Your task to perform on an android device: Open network settings Image 0: 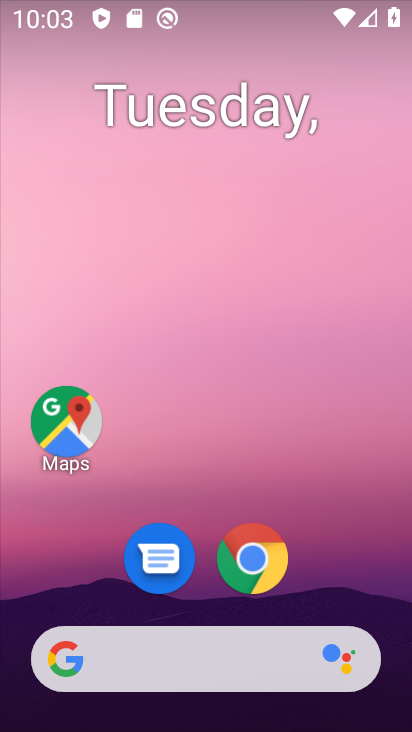
Step 0: drag from (352, 557) to (350, 11)
Your task to perform on an android device: Open network settings Image 1: 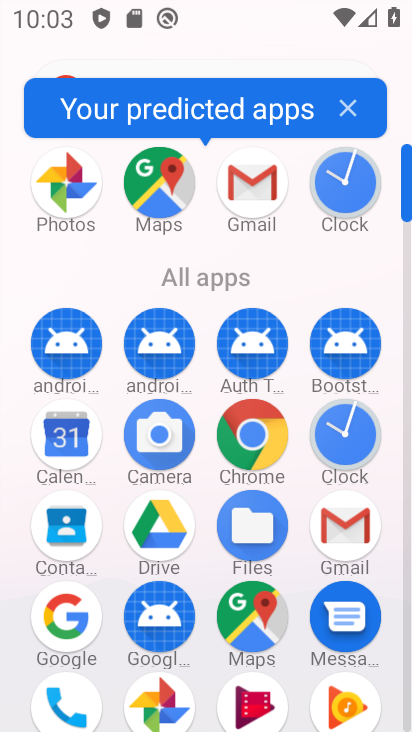
Step 1: drag from (205, 578) to (238, 23)
Your task to perform on an android device: Open network settings Image 2: 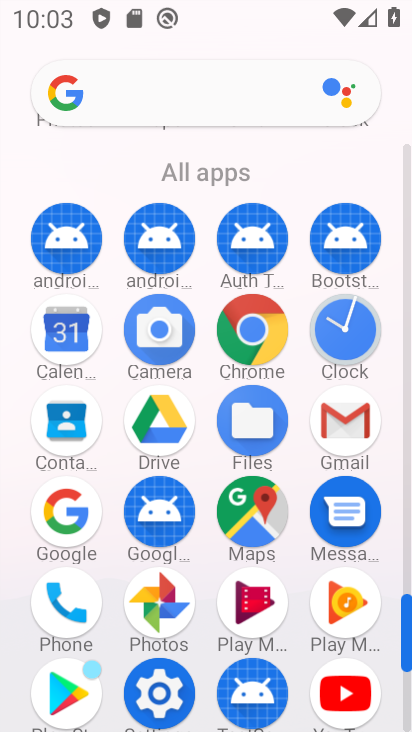
Step 2: click (157, 703)
Your task to perform on an android device: Open network settings Image 3: 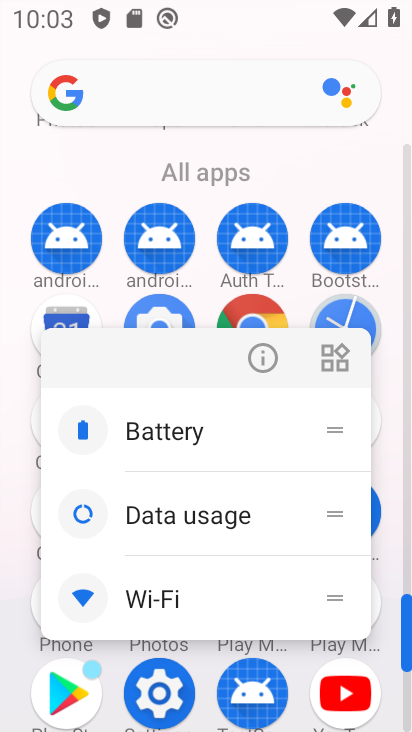
Step 3: click (158, 702)
Your task to perform on an android device: Open network settings Image 4: 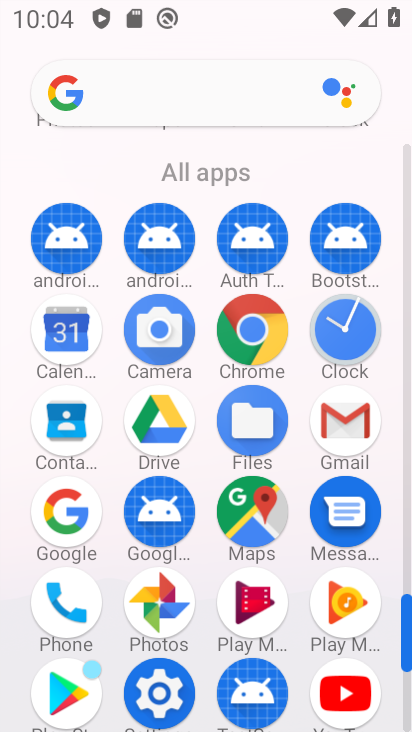
Step 4: click (166, 703)
Your task to perform on an android device: Open network settings Image 5: 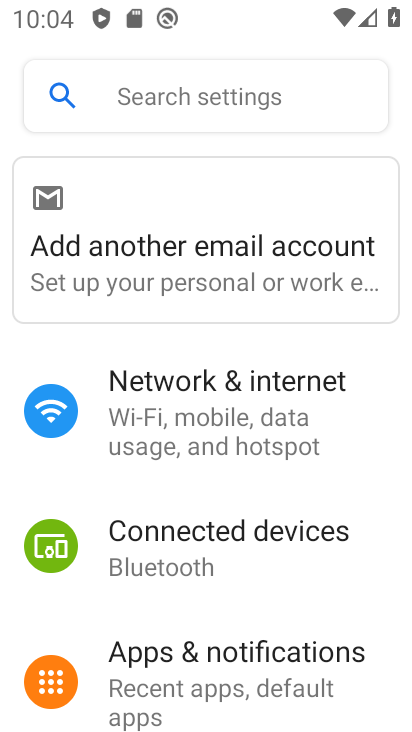
Step 5: click (230, 397)
Your task to perform on an android device: Open network settings Image 6: 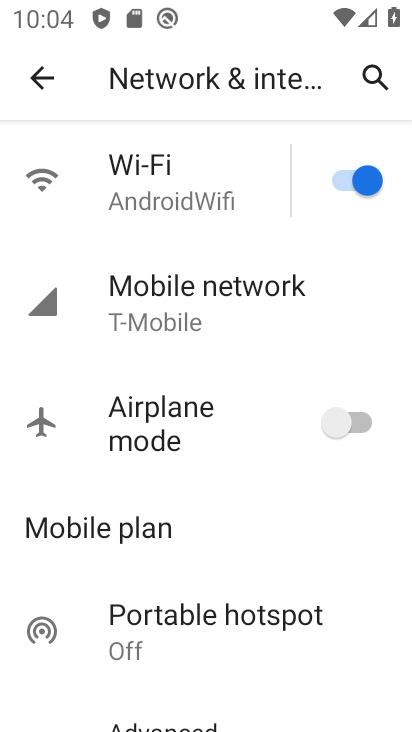
Step 6: click (136, 301)
Your task to perform on an android device: Open network settings Image 7: 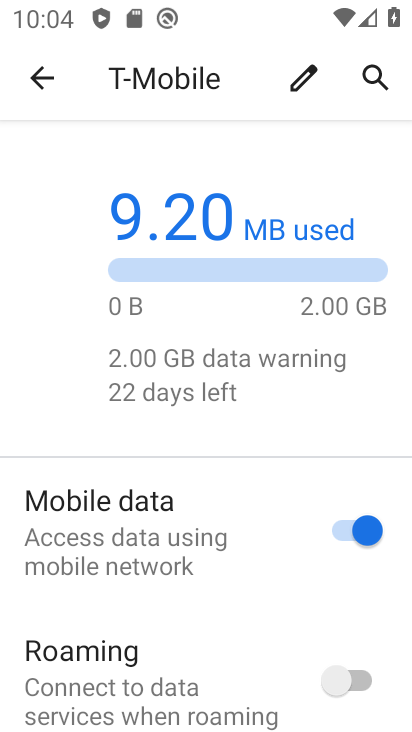
Step 7: task complete